Your task to perform on an android device: Go to network settings Image 0: 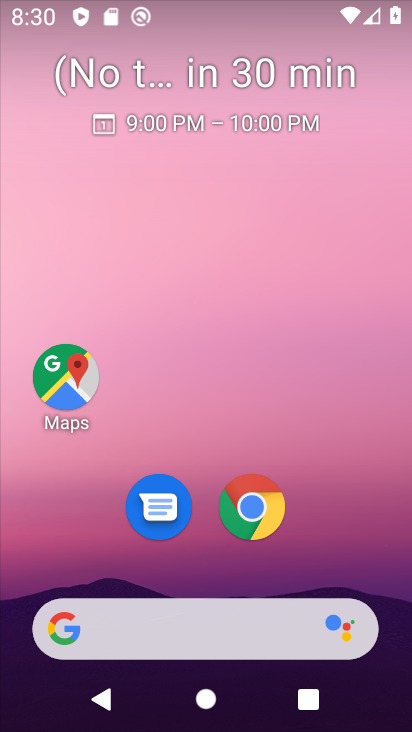
Step 0: drag from (401, 577) to (334, 179)
Your task to perform on an android device: Go to network settings Image 1: 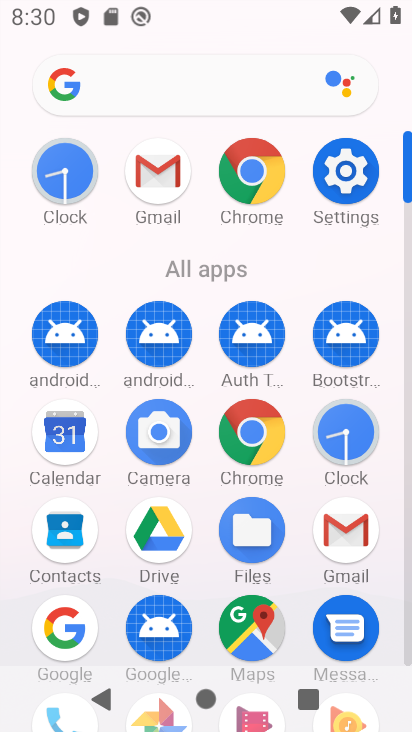
Step 1: click (356, 175)
Your task to perform on an android device: Go to network settings Image 2: 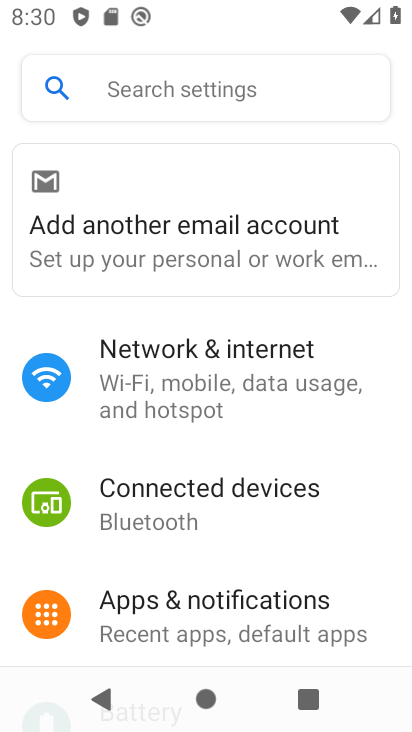
Step 2: click (338, 377)
Your task to perform on an android device: Go to network settings Image 3: 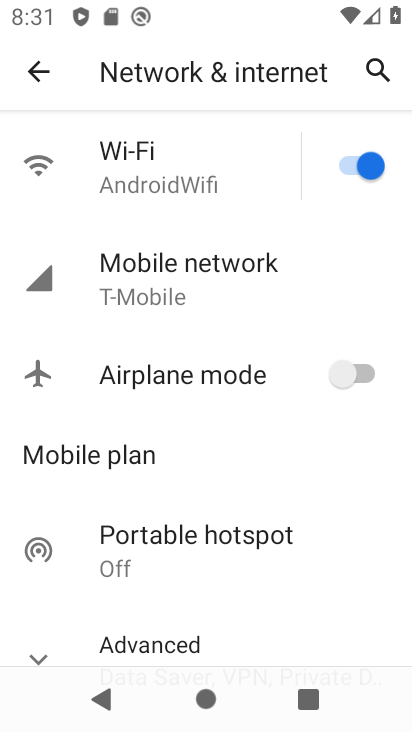
Step 3: task complete